Your task to perform on an android device: change the clock display to digital Image 0: 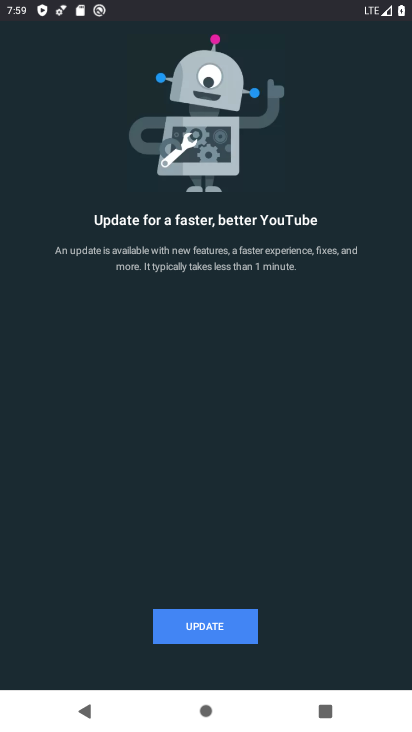
Step 0: press home button
Your task to perform on an android device: change the clock display to digital Image 1: 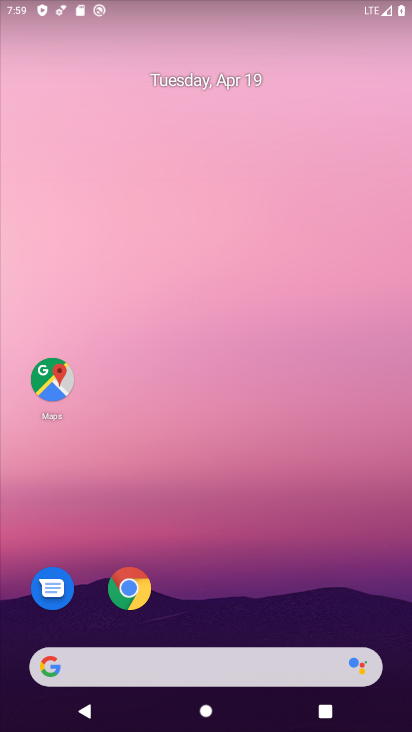
Step 1: drag from (216, 612) to (222, 126)
Your task to perform on an android device: change the clock display to digital Image 2: 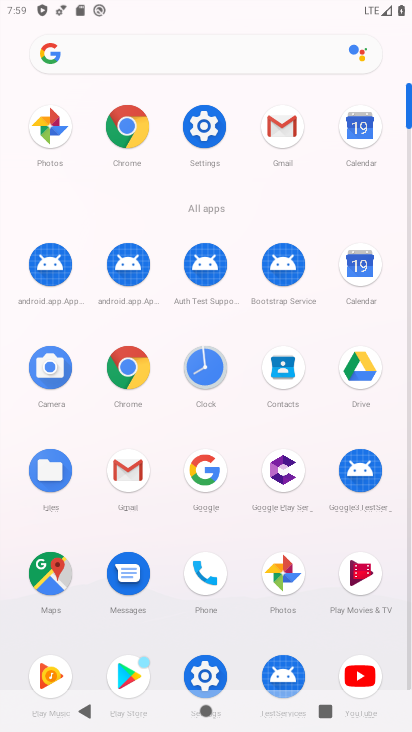
Step 2: click (209, 361)
Your task to perform on an android device: change the clock display to digital Image 3: 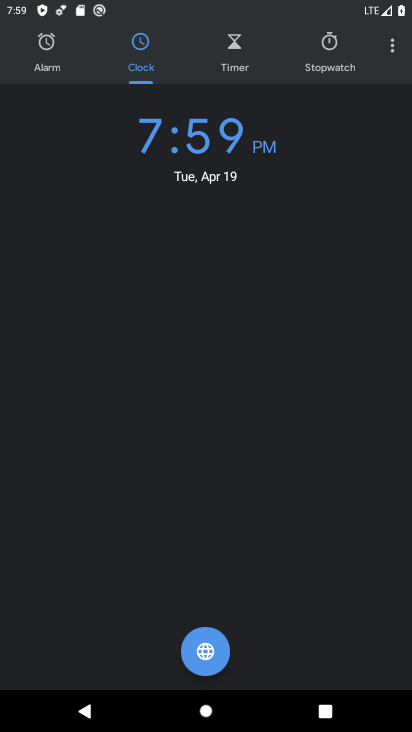
Step 3: click (390, 44)
Your task to perform on an android device: change the clock display to digital Image 4: 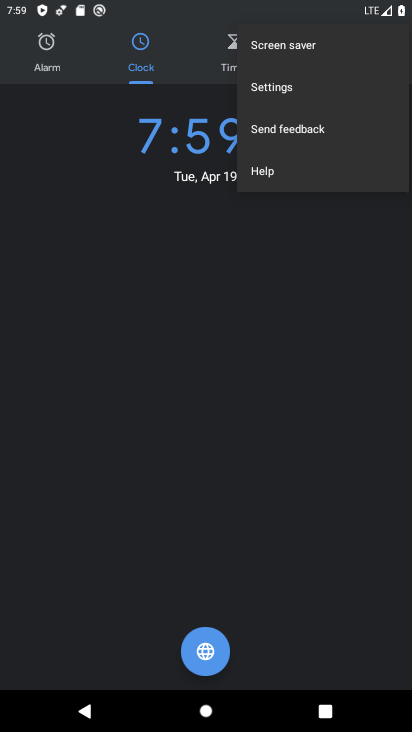
Step 4: click (295, 92)
Your task to perform on an android device: change the clock display to digital Image 5: 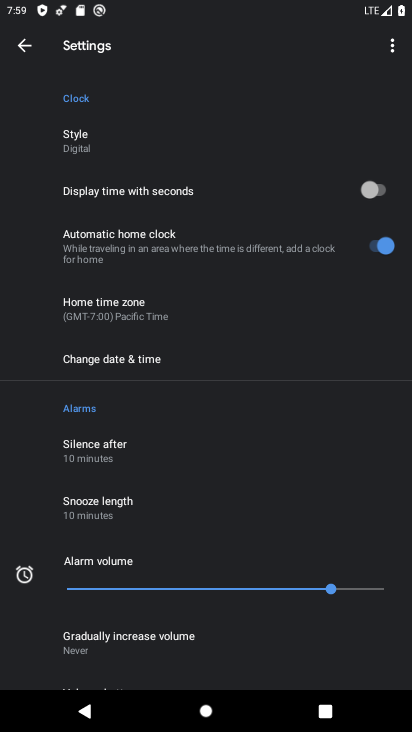
Step 5: click (100, 141)
Your task to perform on an android device: change the clock display to digital Image 6: 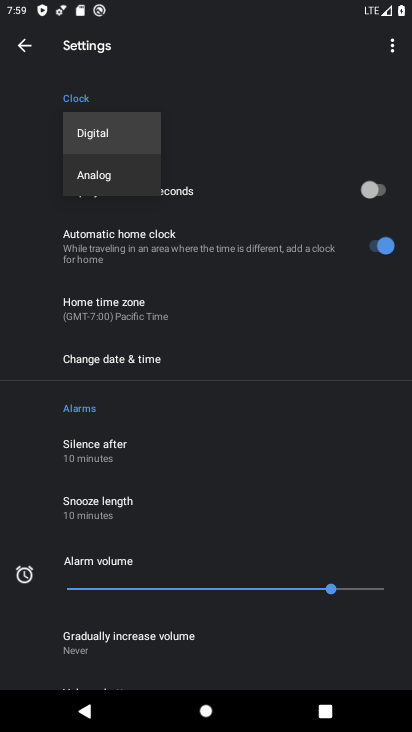
Step 6: click (108, 174)
Your task to perform on an android device: change the clock display to digital Image 7: 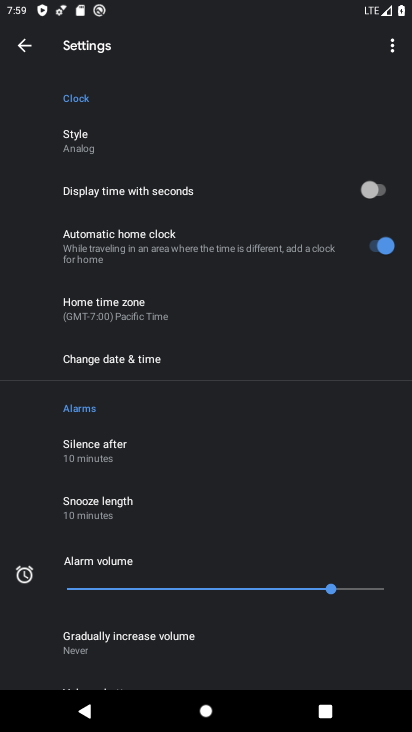
Step 7: task complete